Your task to perform on an android device: Open location settings Image 0: 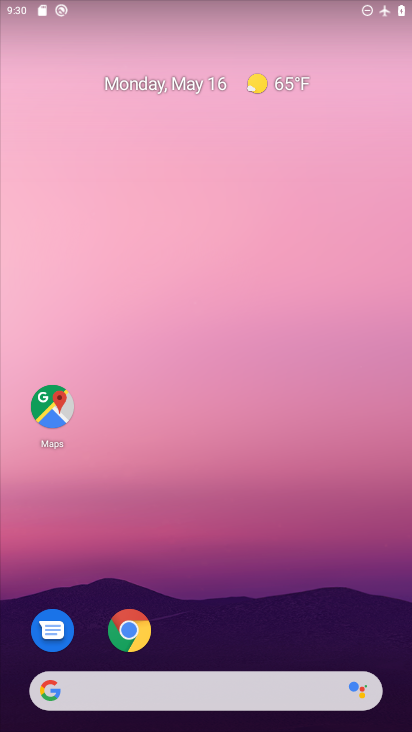
Step 0: drag from (231, 638) to (211, 296)
Your task to perform on an android device: Open location settings Image 1: 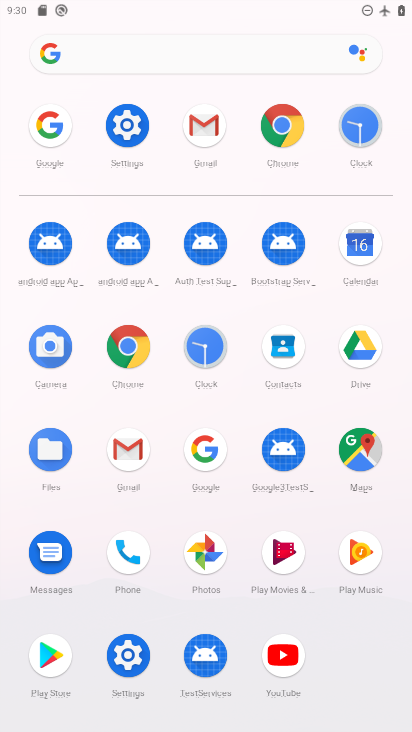
Step 1: click (127, 127)
Your task to perform on an android device: Open location settings Image 2: 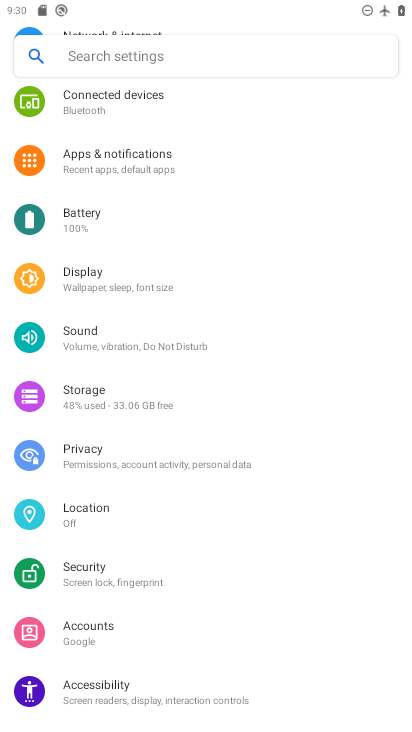
Step 2: drag from (158, 637) to (183, 586)
Your task to perform on an android device: Open location settings Image 3: 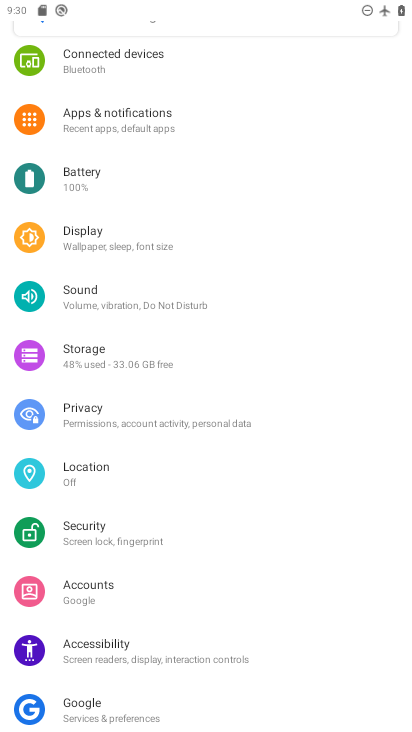
Step 3: click (112, 480)
Your task to perform on an android device: Open location settings Image 4: 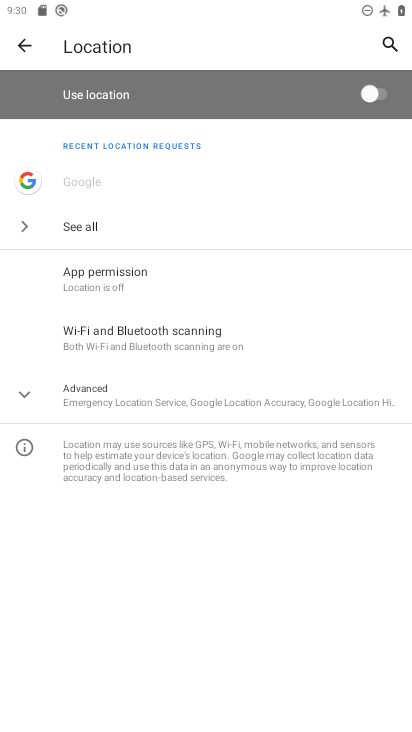
Step 4: task complete